Your task to perform on an android device: Go to Google Image 0: 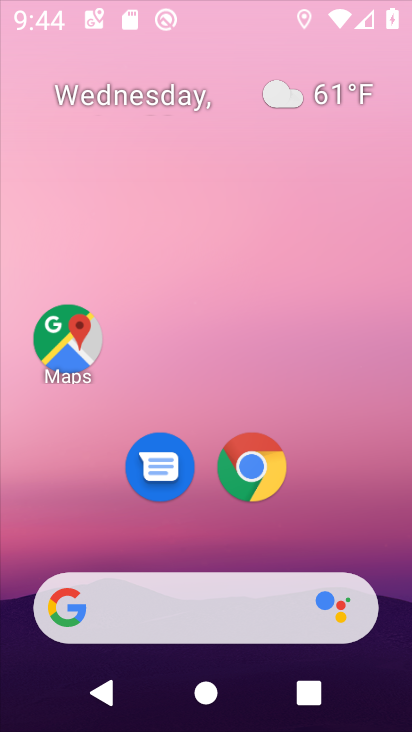
Step 0: drag from (369, 512) to (303, 73)
Your task to perform on an android device: Go to Google Image 1: 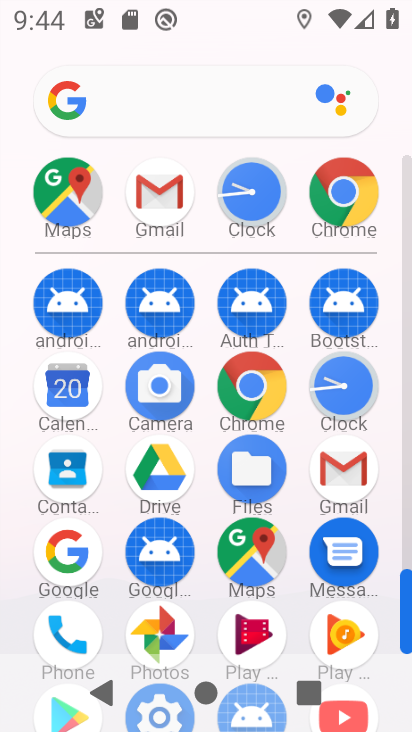
Step 1: click (80, 564)
Your task to perform on an android device: Go to Google Image 2: 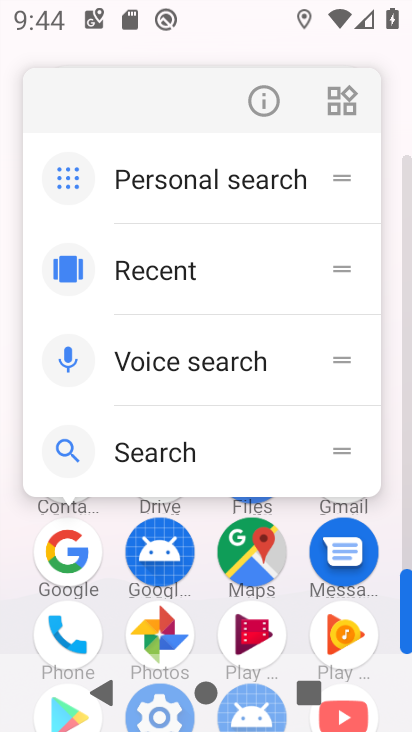
Step 2: click (80, 563)
Your task to perform on an android device: Go to Google Image 3: 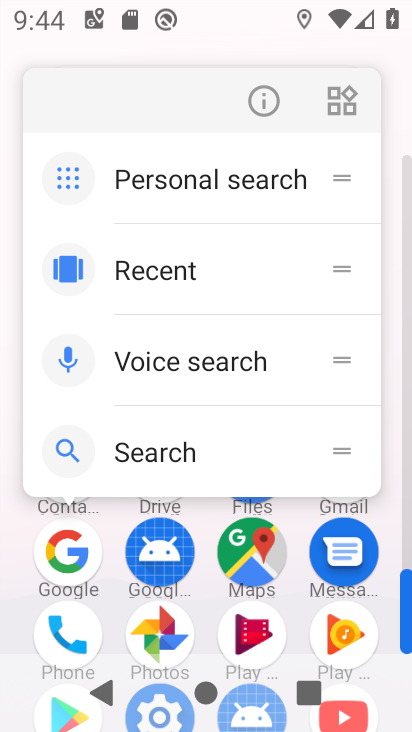
Step 3: click (80, 562)
Your task to perform on an android device: Go to Google Image 4: 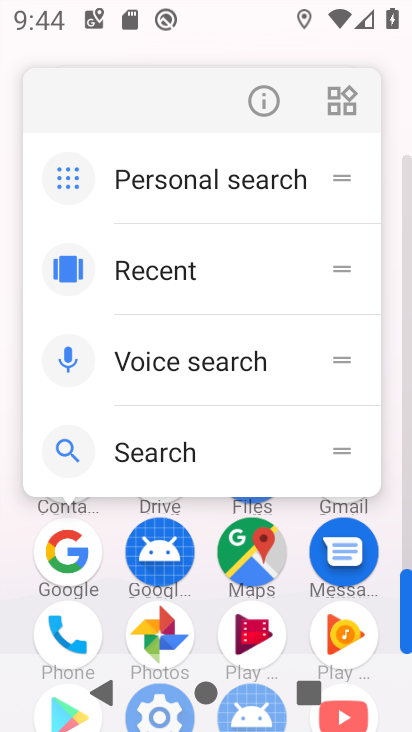
Step 4: click (76, 548)
Your task to perform on an android device: Go to Google Image 5: 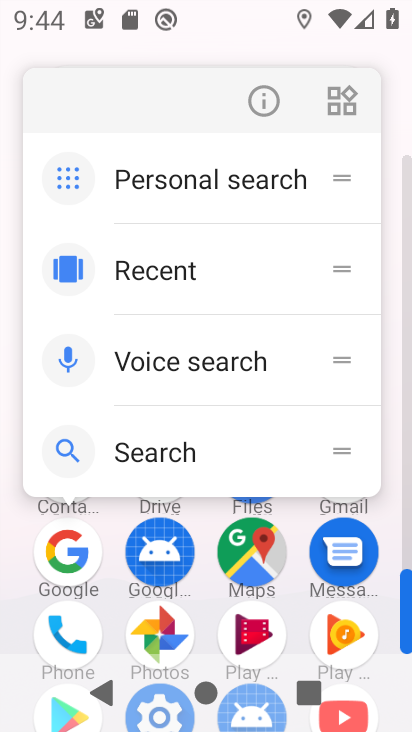
Step 5: click (76, 548)
Your task to perform on an android device: Go to Google Image 6: 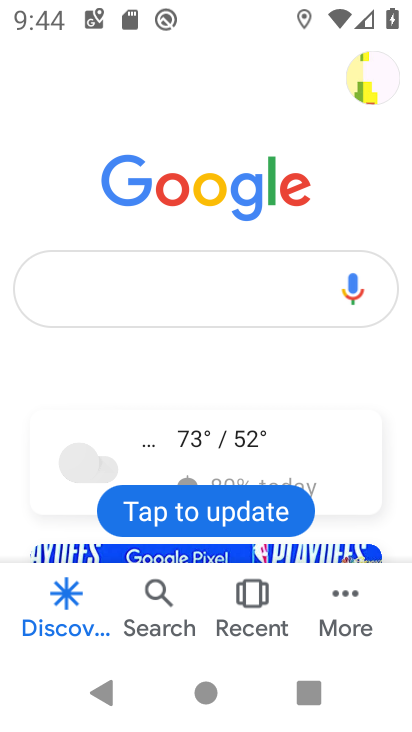
Step 6: task complete